Your task to perform on an android device: Open Reddit.com Image 0: 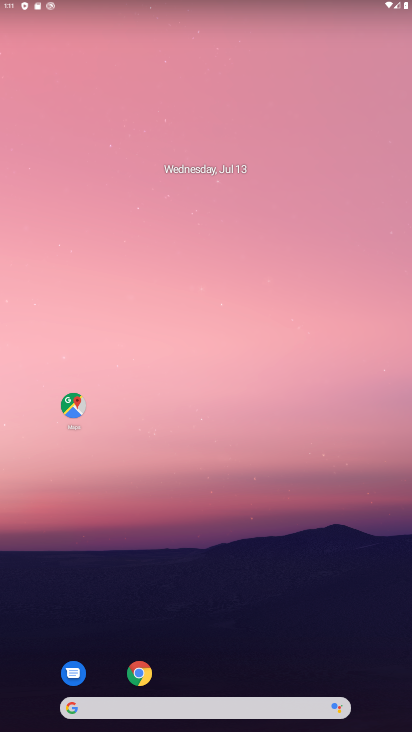
Step 0: drag from (201, 693) to (147, 216)
Your task to perform on an android device: Open Reddit.com Image 1: 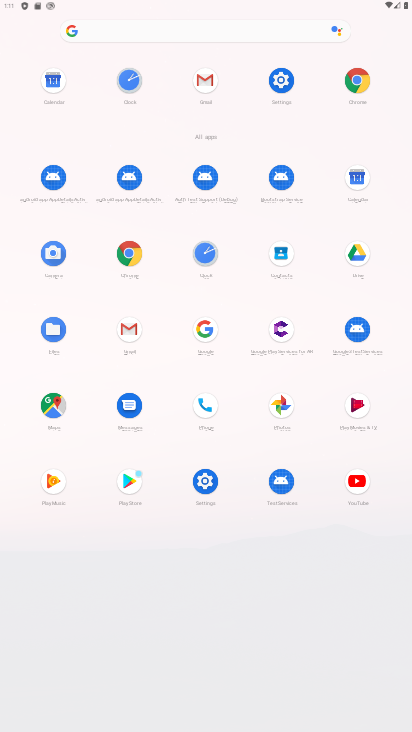
Step 1: click (135, 261)
Your task to perform on an android device: Open Reddit.com Image 2: 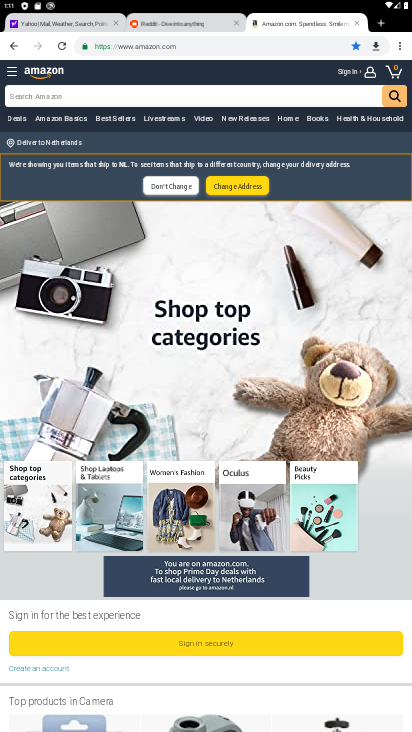
Step 2: click (193, 14)
Your task to perform on an android device: Open Reddit.com Image 3: 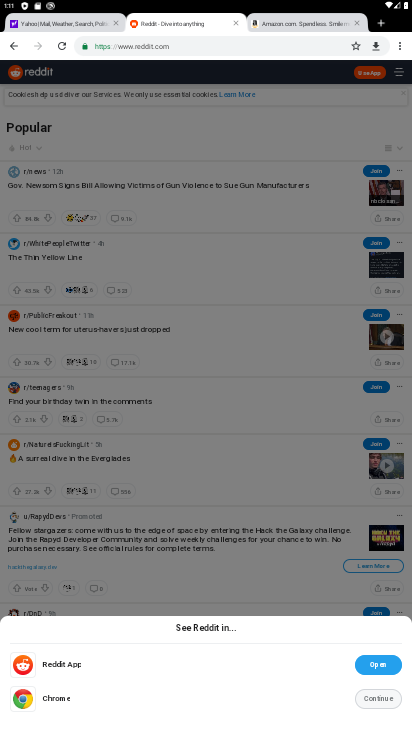
Step 3: task complete